Your task to perform on an android device: change timer sound Image 0: 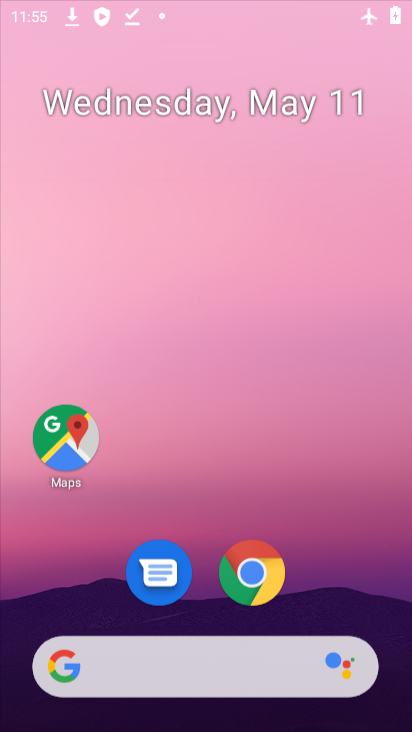
Step 0: click (272, 584)
Your task to perform on an android device: change timer sound Image 1: 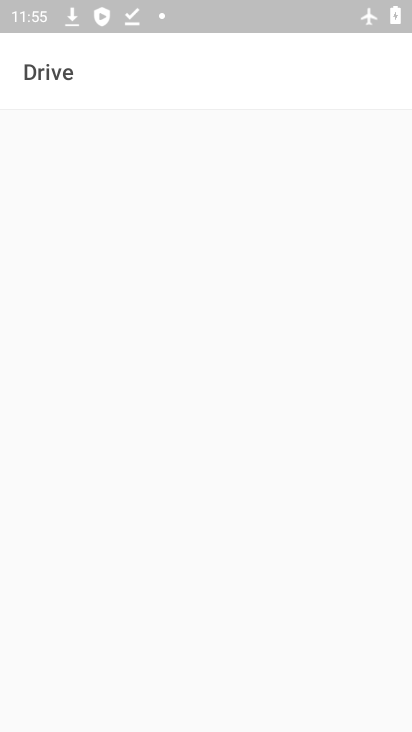
Step 1: press home button
Your task to perform on an android device: change timer sound Image 2: 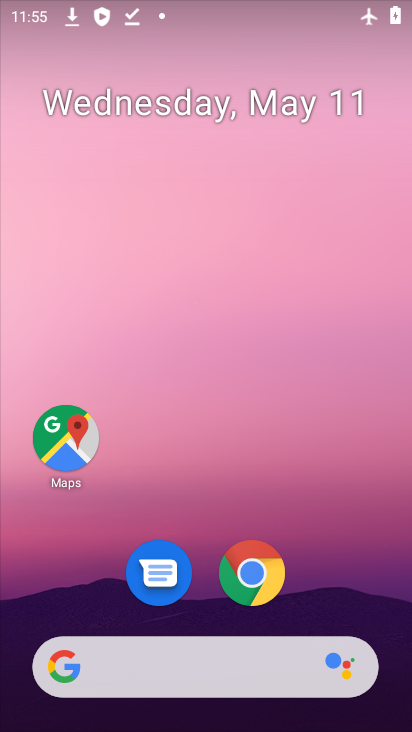
Step 2: drag from (315, 585) to (284, 245)
Your task to perform on an android device: change timer sound Image 3: 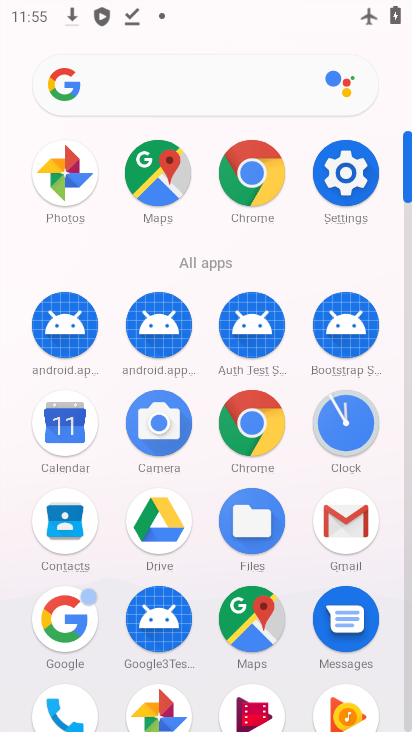
Step 3: click (356, 439)
Your task to perform on an android device: change timer sound Image 4: 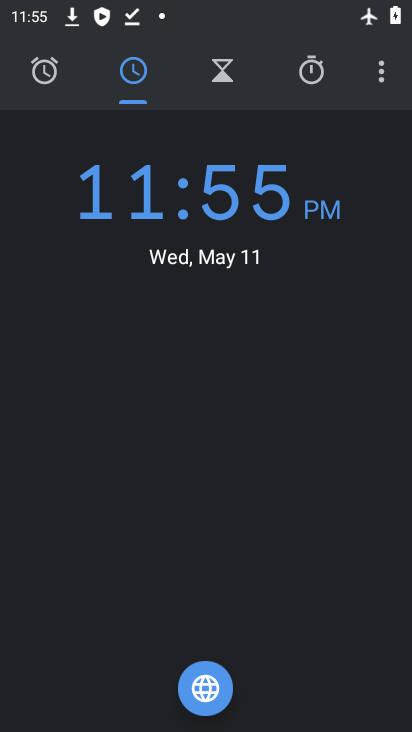
Step 4: click (377, 77)
Your task to perform on an android device: change timer sound Image 5: 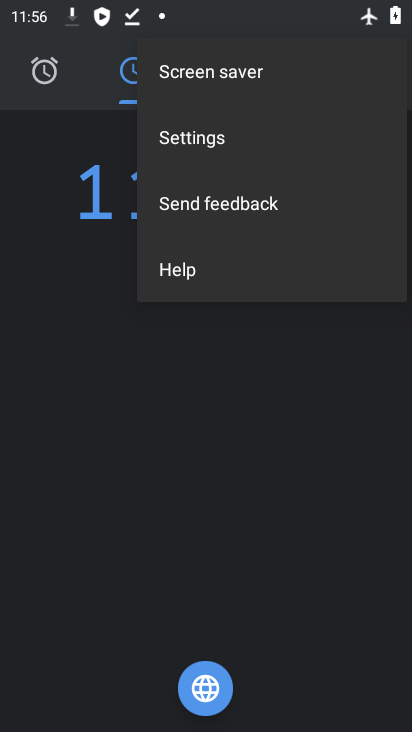
Step 5: click (248, 139)
Your task to perform on an android device: change timer sound Image 6: 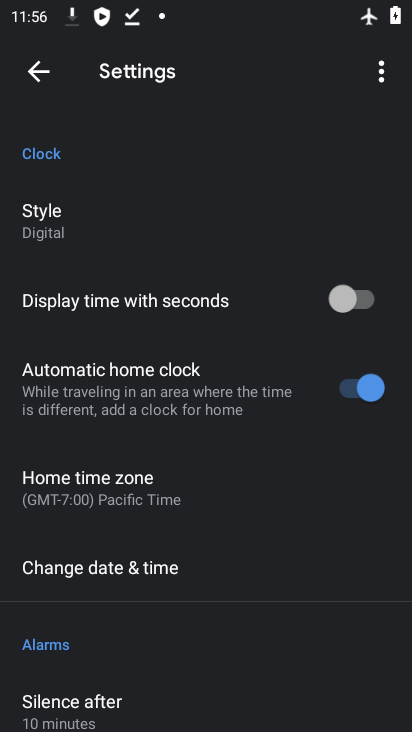
Step 6: drag from (173, 651) to (216, 281)
Your task to perform on an android device: change timer sound Image 7: 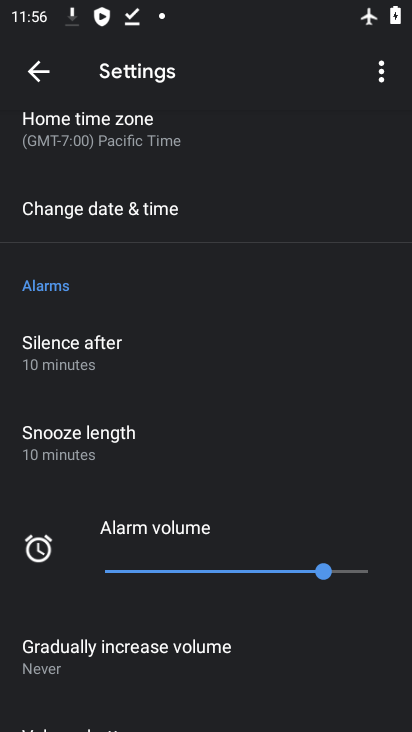
Step 7: drag from (247, 676) to (297, 239)
Your task to perform on an android device: change timer sound Image 8: 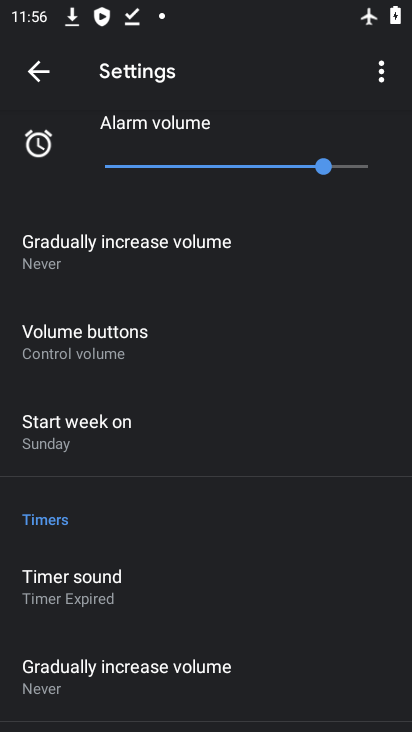
Step 8: click (115, 595)
Your task to perform on an android device: change timer sound Image 9: 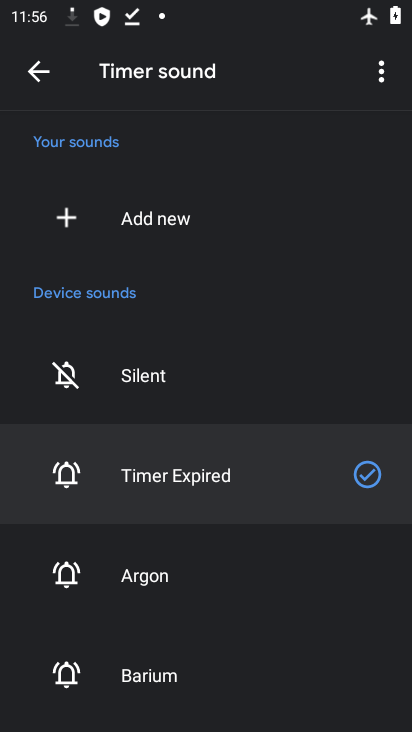
Step 9: click (205, 583)
Your task to perform on an android device: change timer sound Image 10: 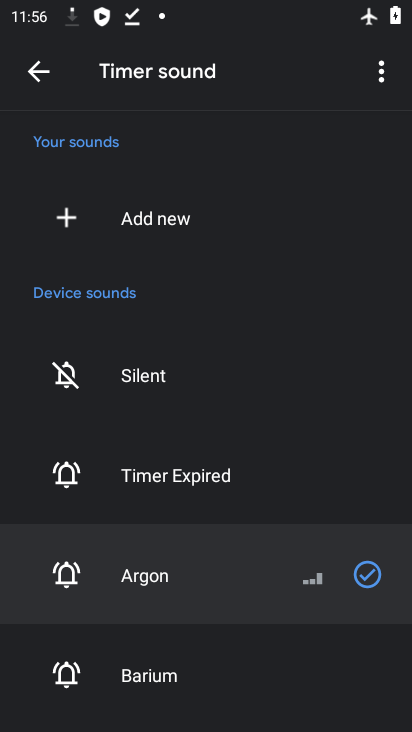
Step 10: task complete